Your task to perform on an android device: Open calendar and show me the third week of next month Image 0: 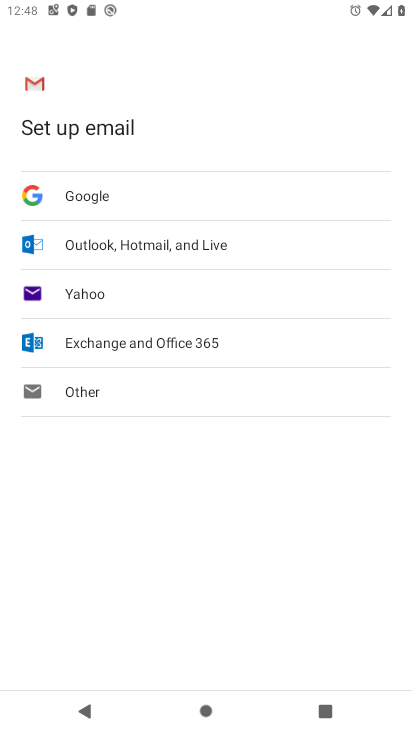
Step 0: press home button
Your task to perform on an android device: Open calendar and show me the third week of next month Image 1: 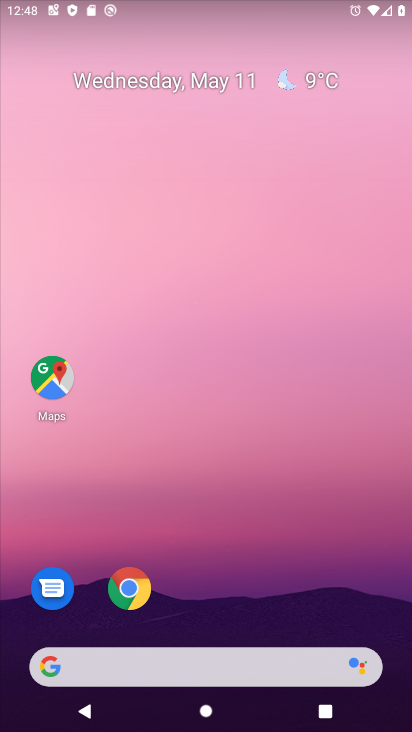
Step 1: drag from (324, 616) to (344, 1)
Your task to perform on an android device: Open calendar and show me the third week of next month Image 2: 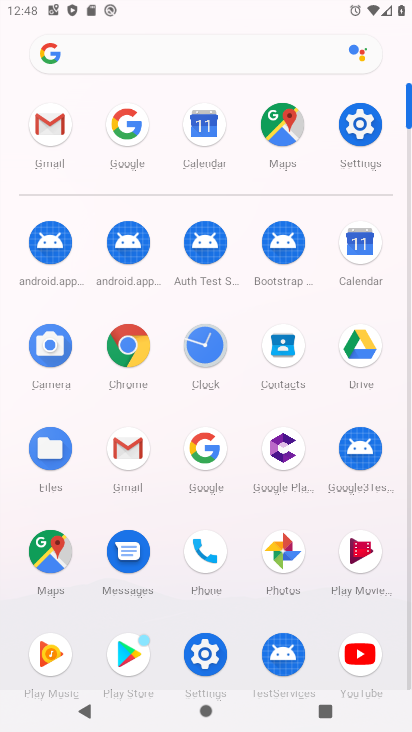
Step 2: click (198, 139)
Your task to perform on an android device: Open calendar and show me the third week of next month Image 3: 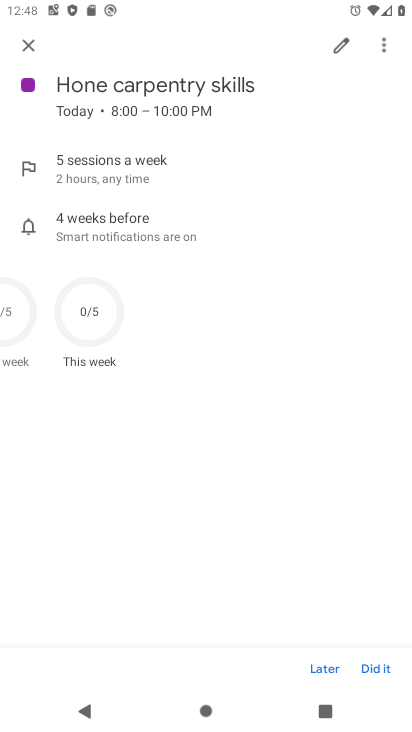
Step 3: click (21, 44)
Your task to perform on an android device: Open calendar and show me the third week of next month Image 4: 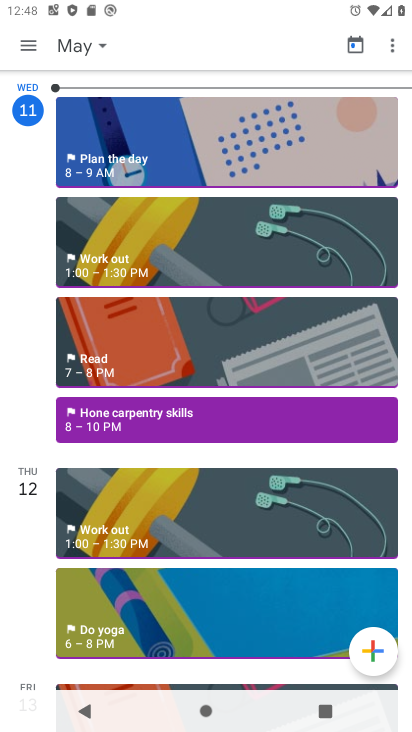
Step 4: click (100, 47)
Your task to perform on an android device: Open calendar and show me the third week of next month Image 5: 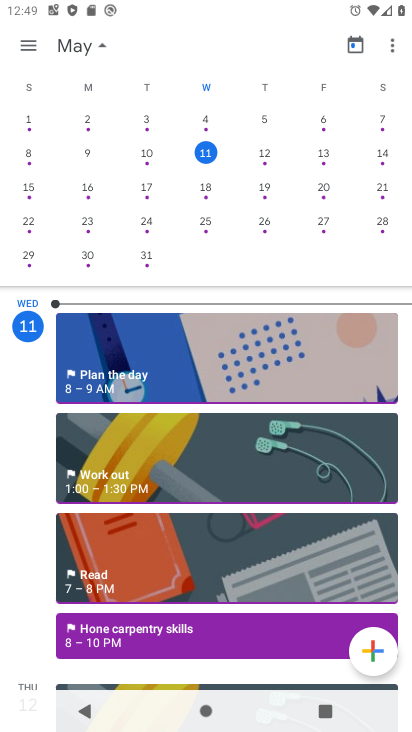
Step 5: drag from (361, 177) to (120, 122)
Your task to perform on an android device: Open calendar and show me the third week of next month Image 6: 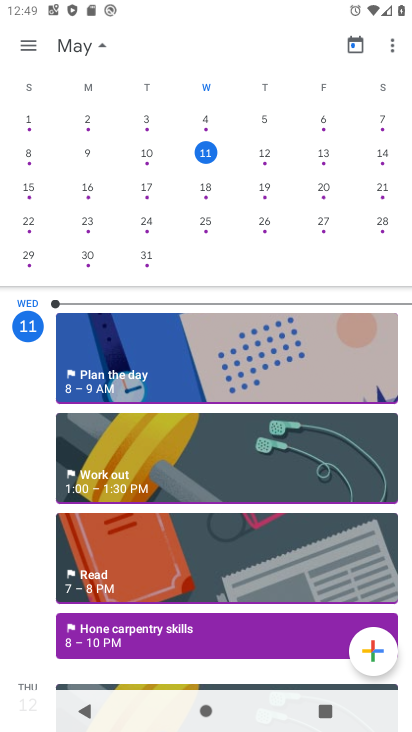
Step 6: drag from (319, 182) to (40, 185)
Your task to perform on an android device: Open calendar and show me the third week of next month Image 7: 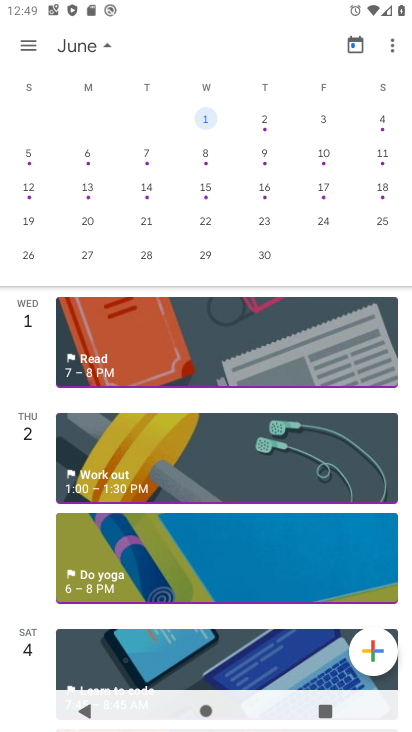
Step 7: click (32, 46)
Your task to perform on an android device: Open calendar and show me the third week of next month Image 8: 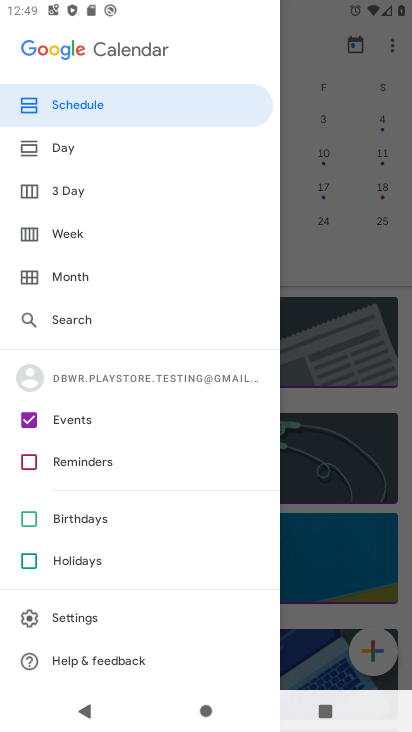
Step 8: click (72, 239)
Your task to perform on an android device: Open calendar and show me the third week of next month Image 9: 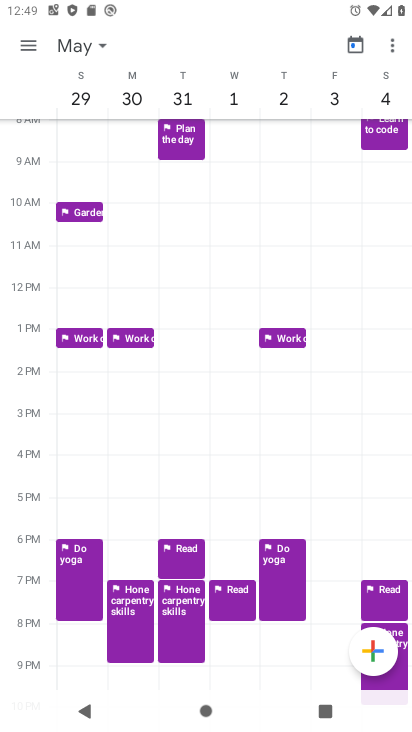
Step 9: task complete